Your task to perform on an android device: Show me the alarms in the clock app Image 0: 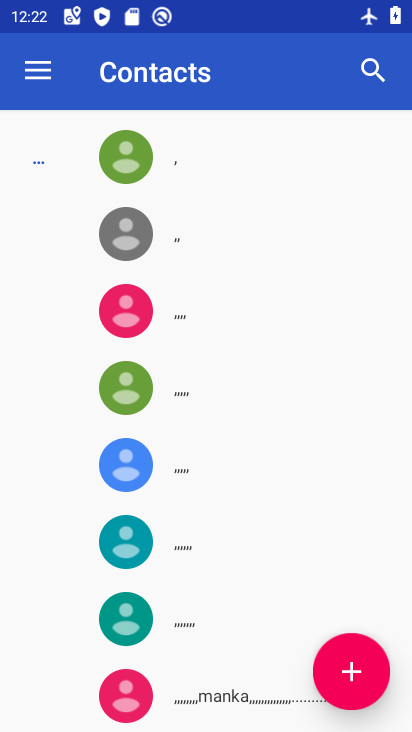
Step 0: press home button
Your task to perform on an android device: Show me the alarms in the clock app Image 1: 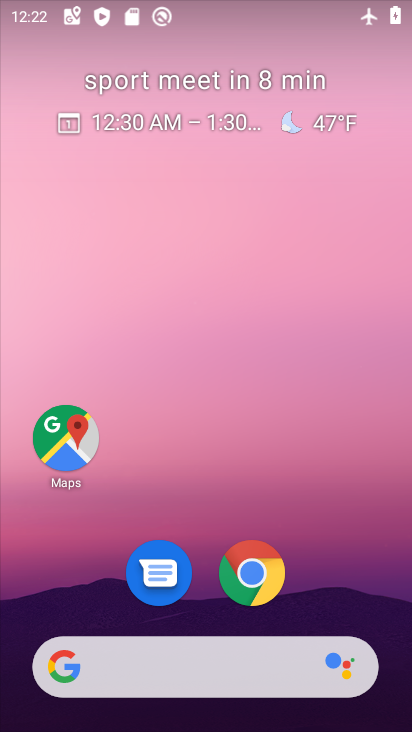
Step 1: drag from (196, 600) to (224, 195)
Your task to perform on an android device: Show me the alarms in the clock app Image 2: 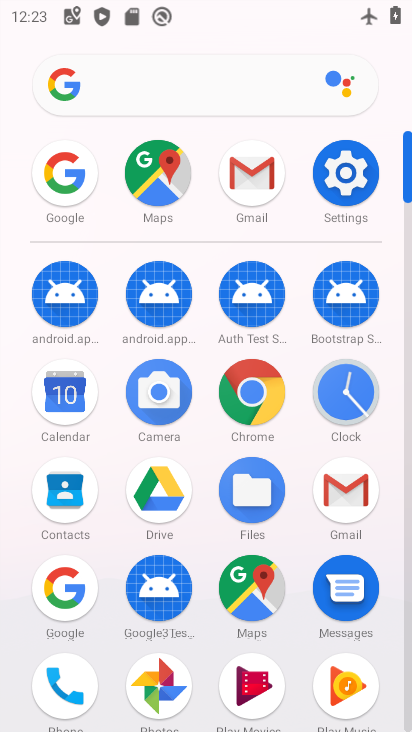
Step 2: click (331, 398)
Your task to perform on an android device: Show me the alarms in the clock app Image 3: 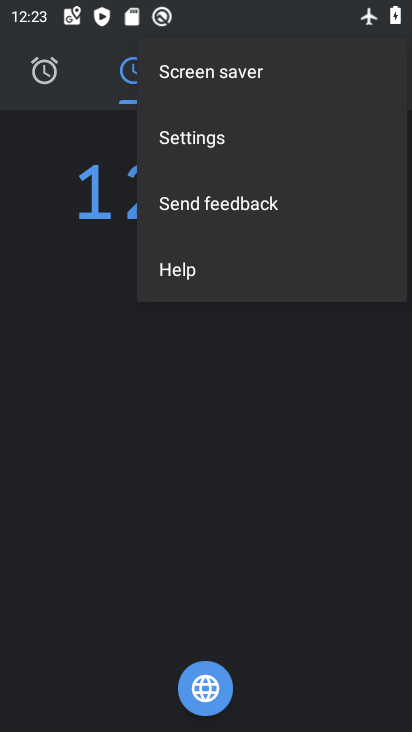
Step 3: click (37, 108)
Your task to perform on an android device: Show me the alarms in the clock app Image 4: 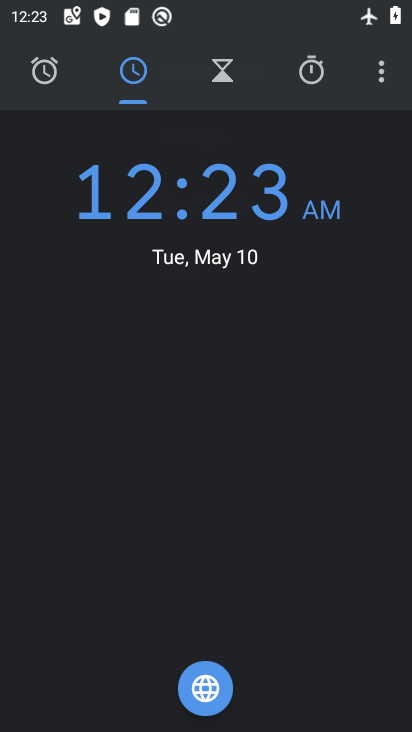
Step 4: click (45, 83)
Your task to perform on an android device: Show me the alarms in the clock app Image 5: 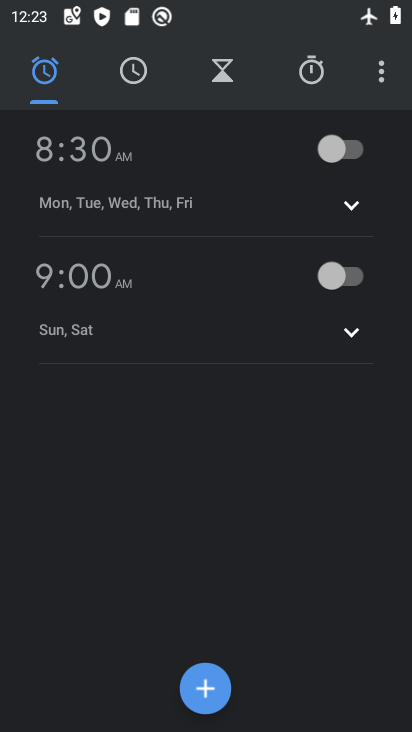
Step 5: click (45, 83)
Your task to perform on an android device: Show me the alarms in the clock app Image 6: 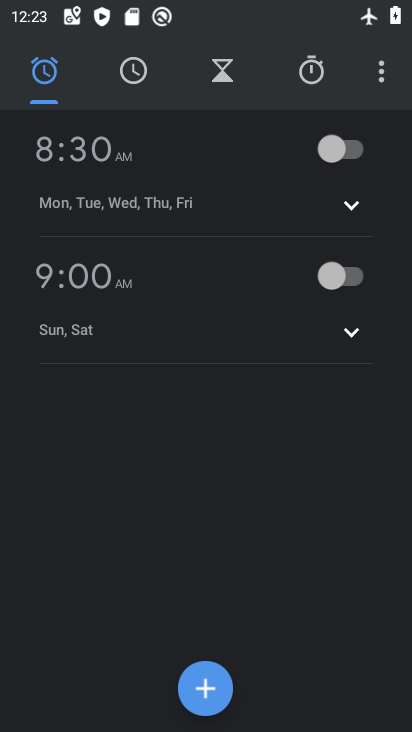
Step 6: task complete